Your task to perform on an android device: create a new album in the google photos Image 0: 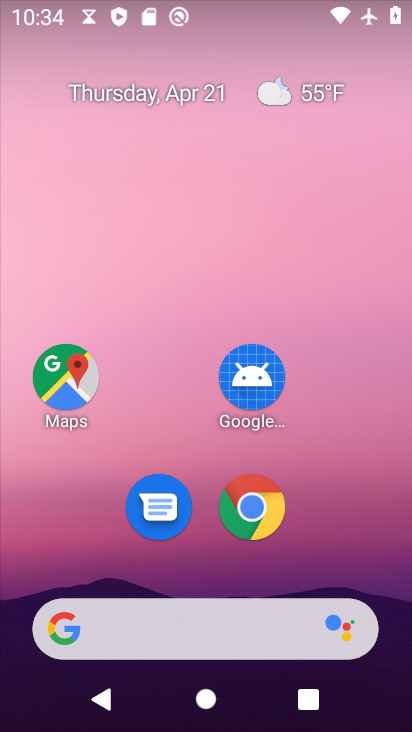
Step 0: drag from (331, 410) to (361, 152)
Your task to perform on an android device: create a new album in the google photos Image 1: 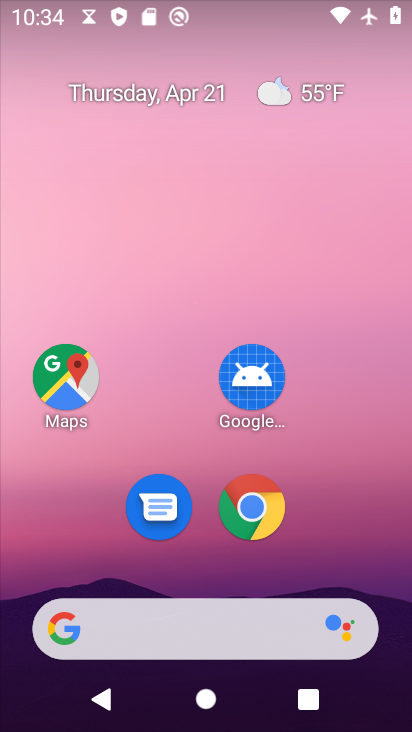
Step 1: drag from (314, 488) to (338, 95)
Your task to perform on an android device: create a new album in the google photos Image 2: 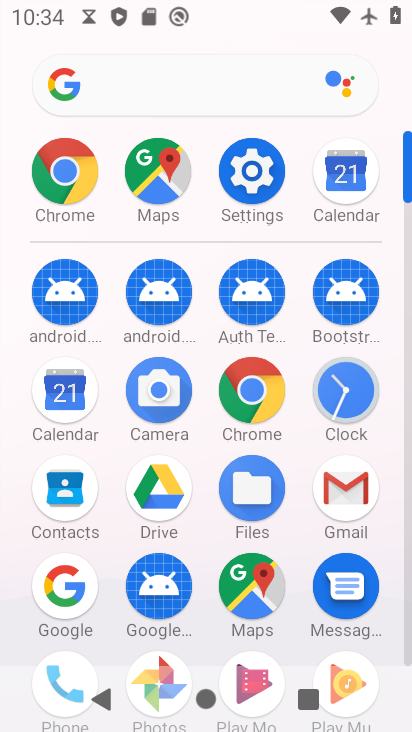
Step 2: drag from (197, 634) to (250, 350)
Your task to perform on an android device: create a new album in the google photos Image 3: 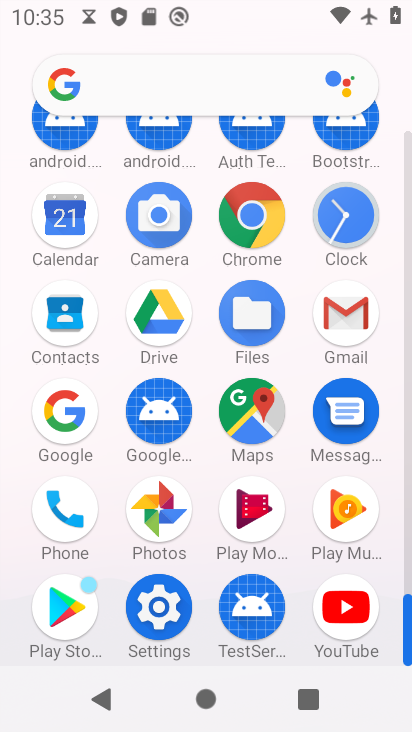
Step 3: click (154, 513)
Your task to perform on an android device: create a new album in the google photos Image 4: 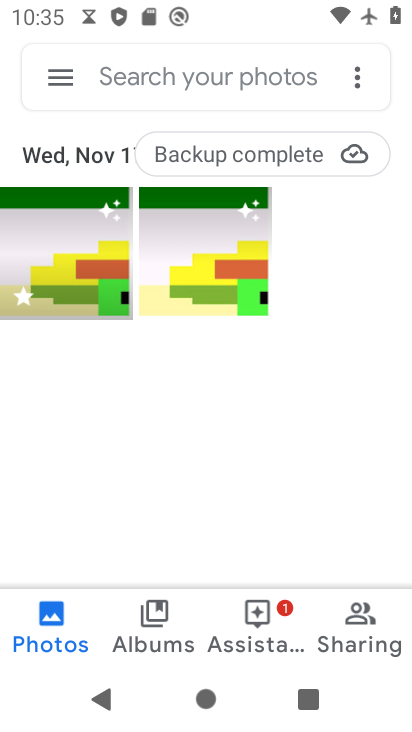
Step 4: click (65, 253)
Your task to perform on an android device: create a new album in the google photos Image 5: 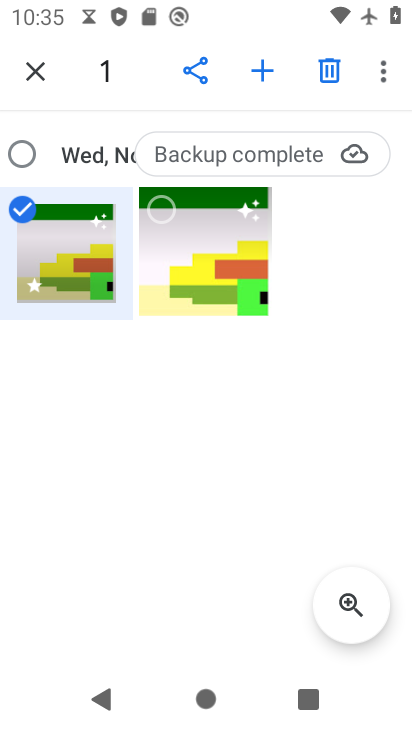
Step 5: click (247, 71)
Your task to perform on an android device: create a new album in the google photos Image 6: 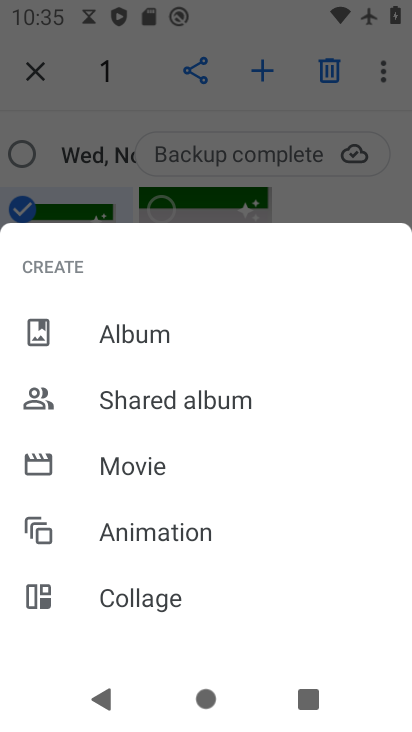
Step 6: click (164, 334)
Your task to perform on an android device: create a new album in the google photos Image 7: 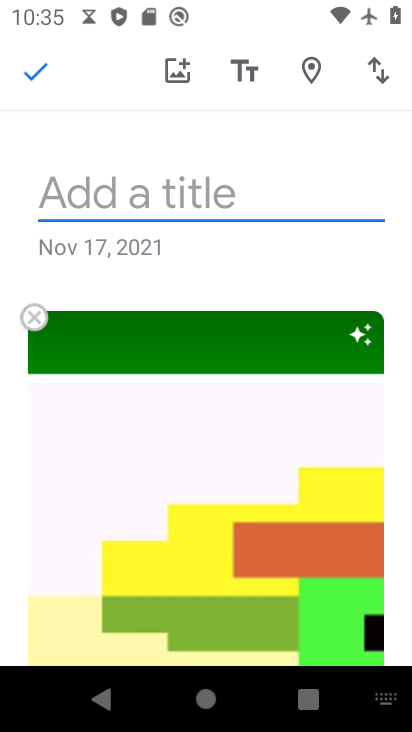
Step 7: click (172, 178)
Your task to perform on an android device: create a new album in the google photos Image 8: 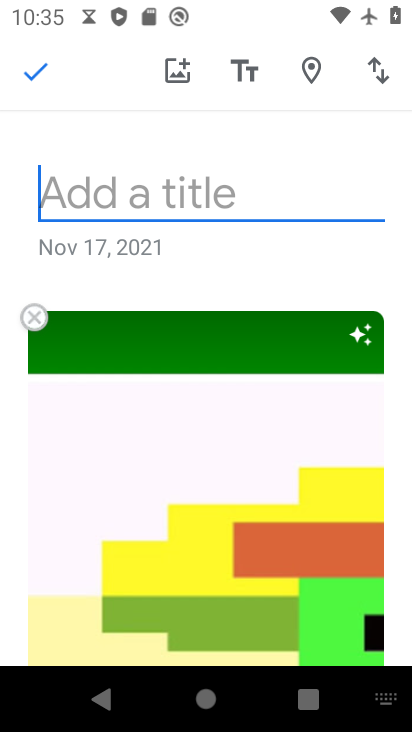
Step 8: type "jkjjjjjjkjkjkj"
Your task to perform on an android device: create a new album in the google photos Image 9: 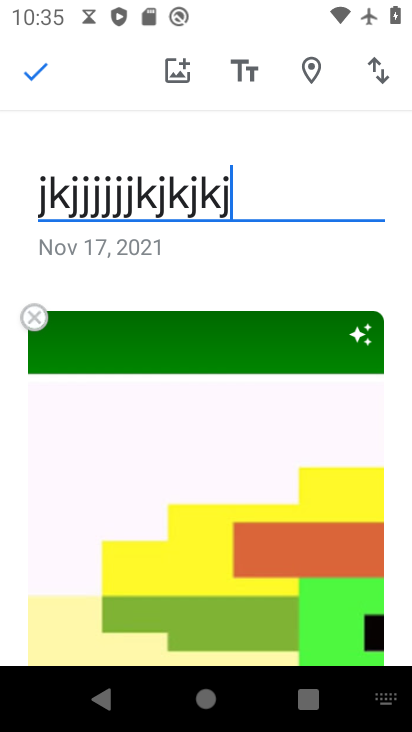
Step 9: click (22, 80)
Your task to perform on an android device: create a new album in the google photos Image 10: 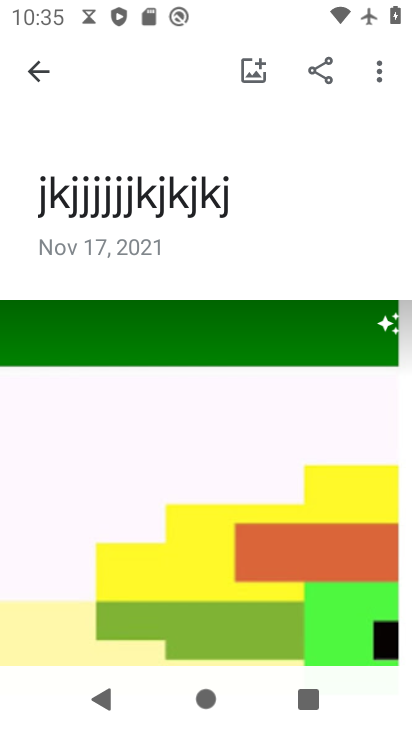
Step 10: task complete